Your task to perform on an android device: Open Reddit.com Image 0: 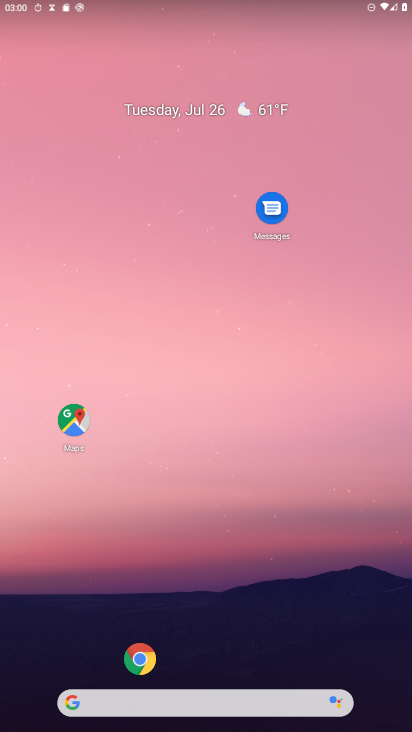
Step 0: click (111, 705)
Your task to perform on an android device: Open Reddit.com Image 1: 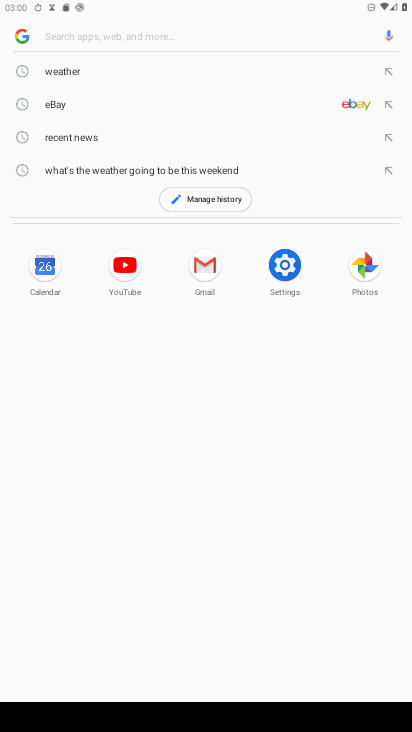
Step 1: type "Reddit.com"
Your task to perform on an android device: Open Reddit.com Image 2: 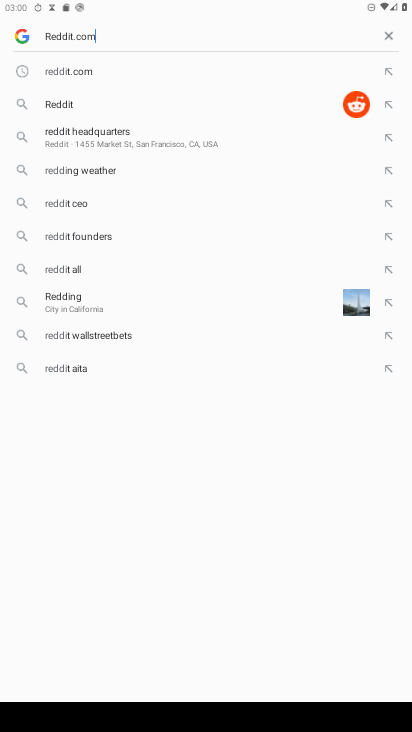
Step 2: type ""
Your task to perform on an android device: Open Reddit.com Image 3: 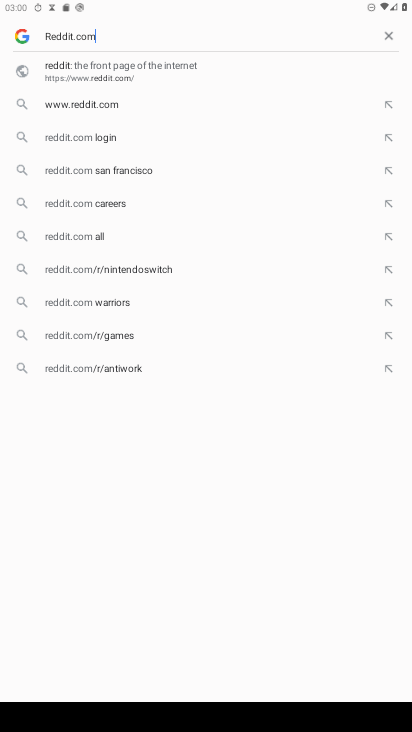
Step 3: click (103, 113)
Your task to perform on an android device: Open Reddit.com Image 4: 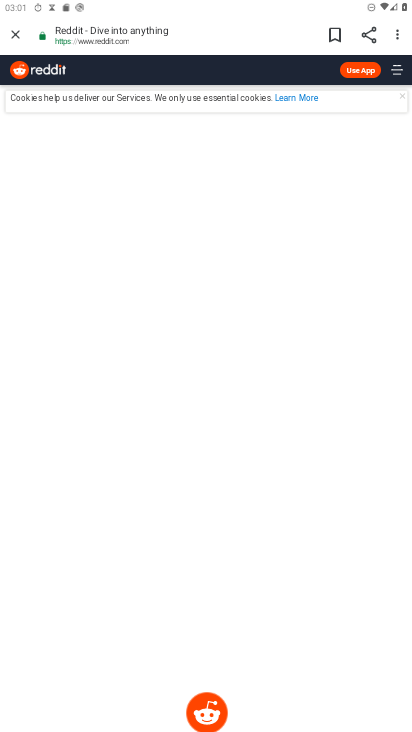
Step 4: task complete